Your task to perform on an android device: Open Reddit.com Image 0: 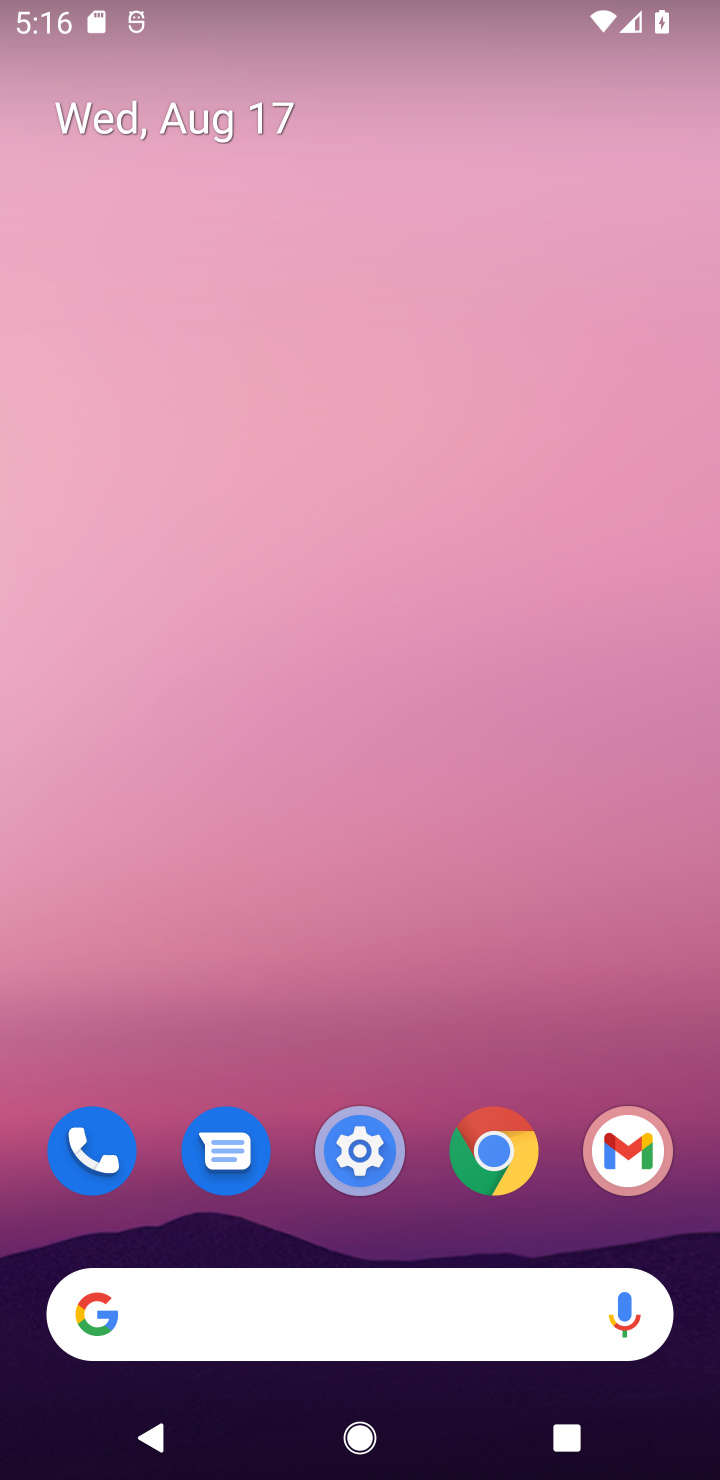
Step 0: click (499, 1154)
Your task to perform on an android device: Open Reddit.com Image 1: 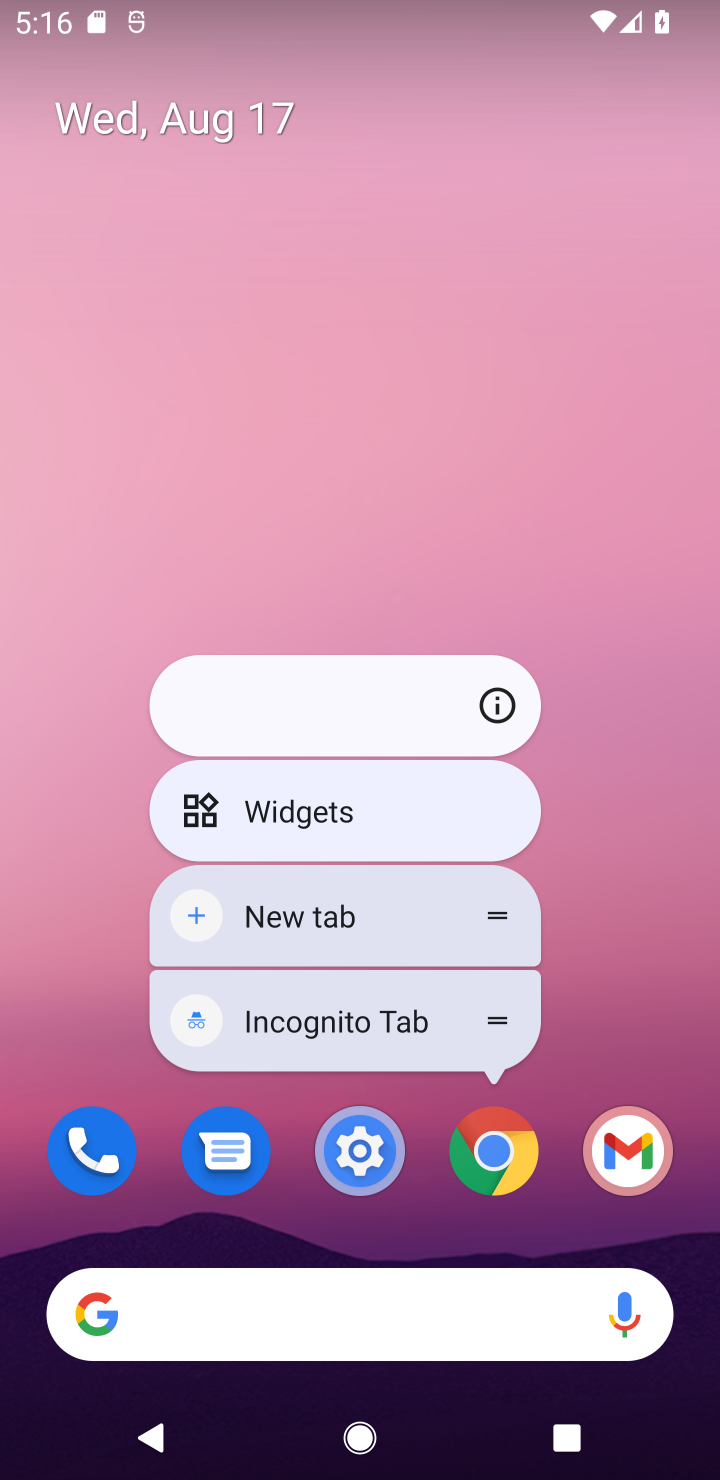
Step 1: click (498, 1153)
Your task to perform on an android device: Open Reddit.com Image 2: 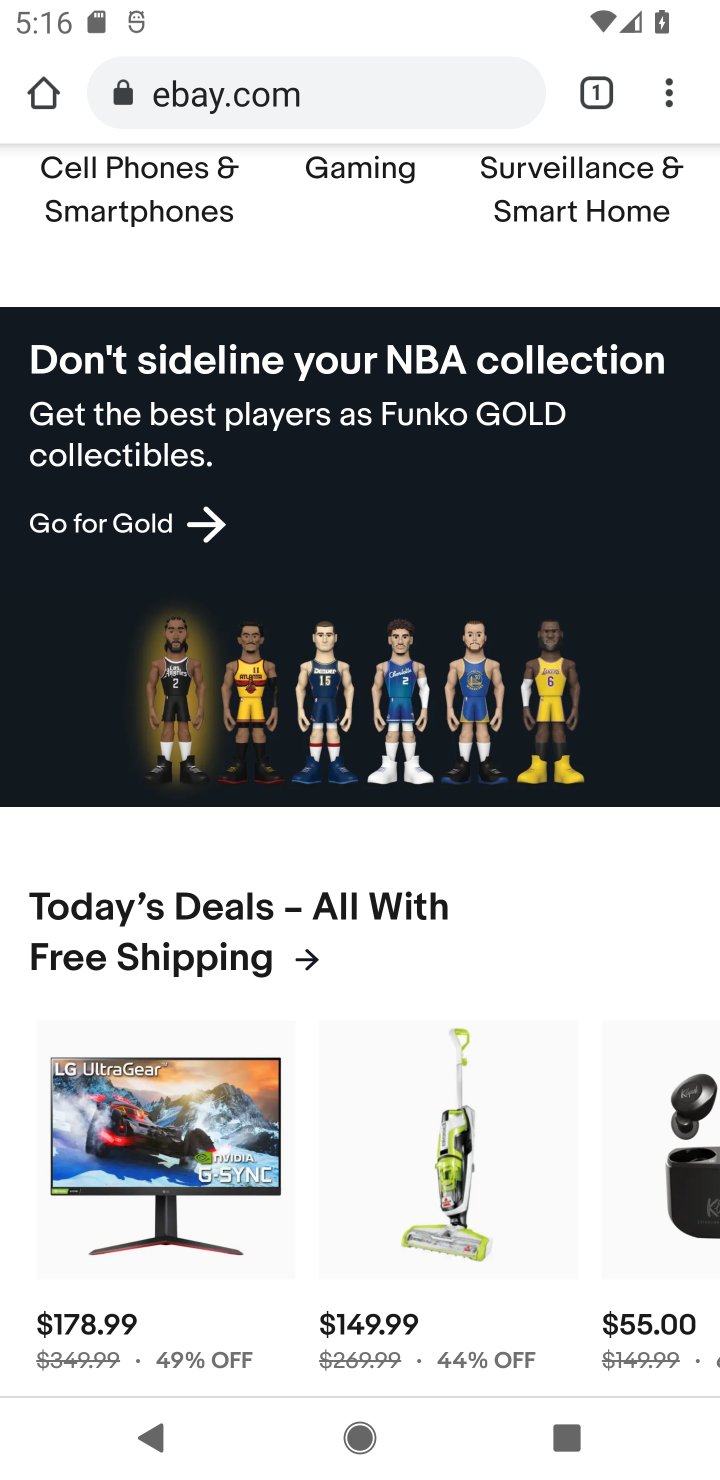
Step 2: click (410, 82)
Your task to perform on an android device: Open Reddit.com Image 3: 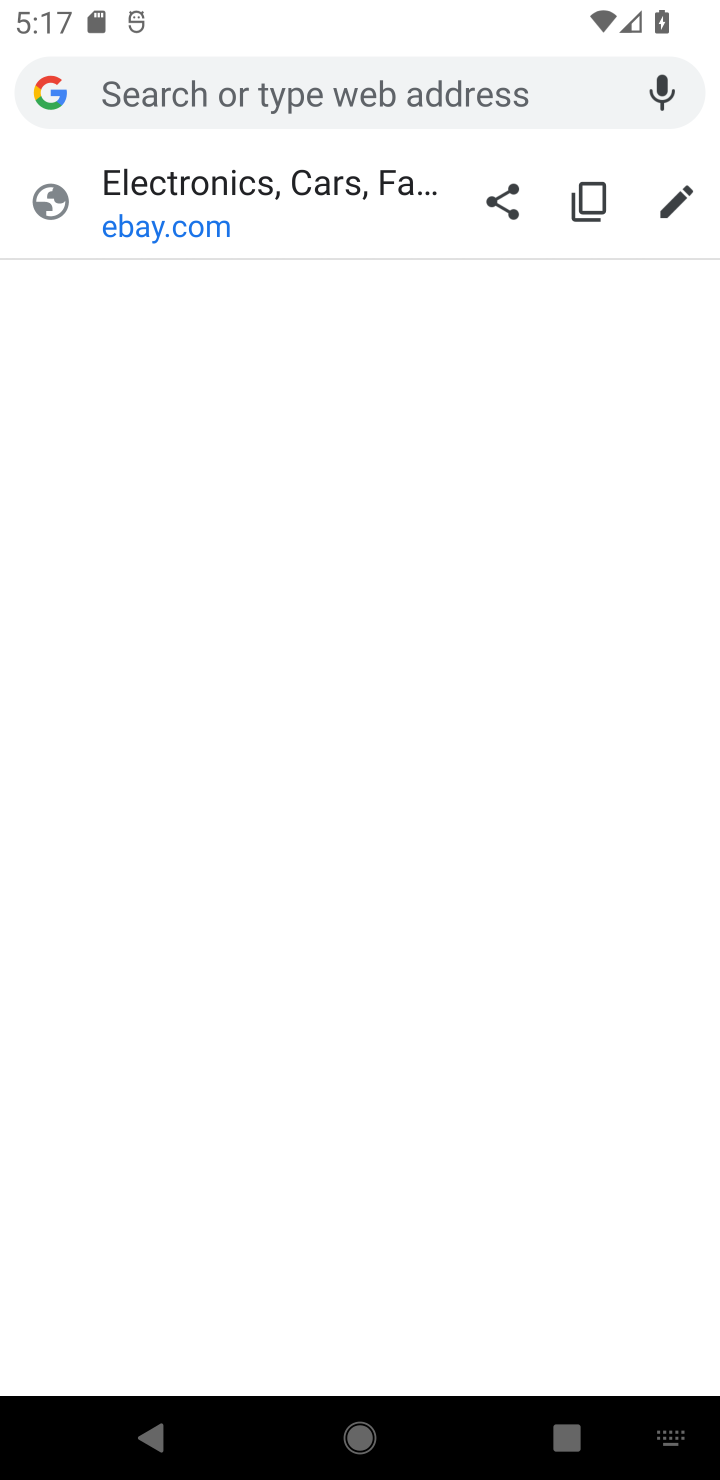
Step 3: type "reddit.com"
Your task to perform on an android device: Open Reddit.com Image 4: 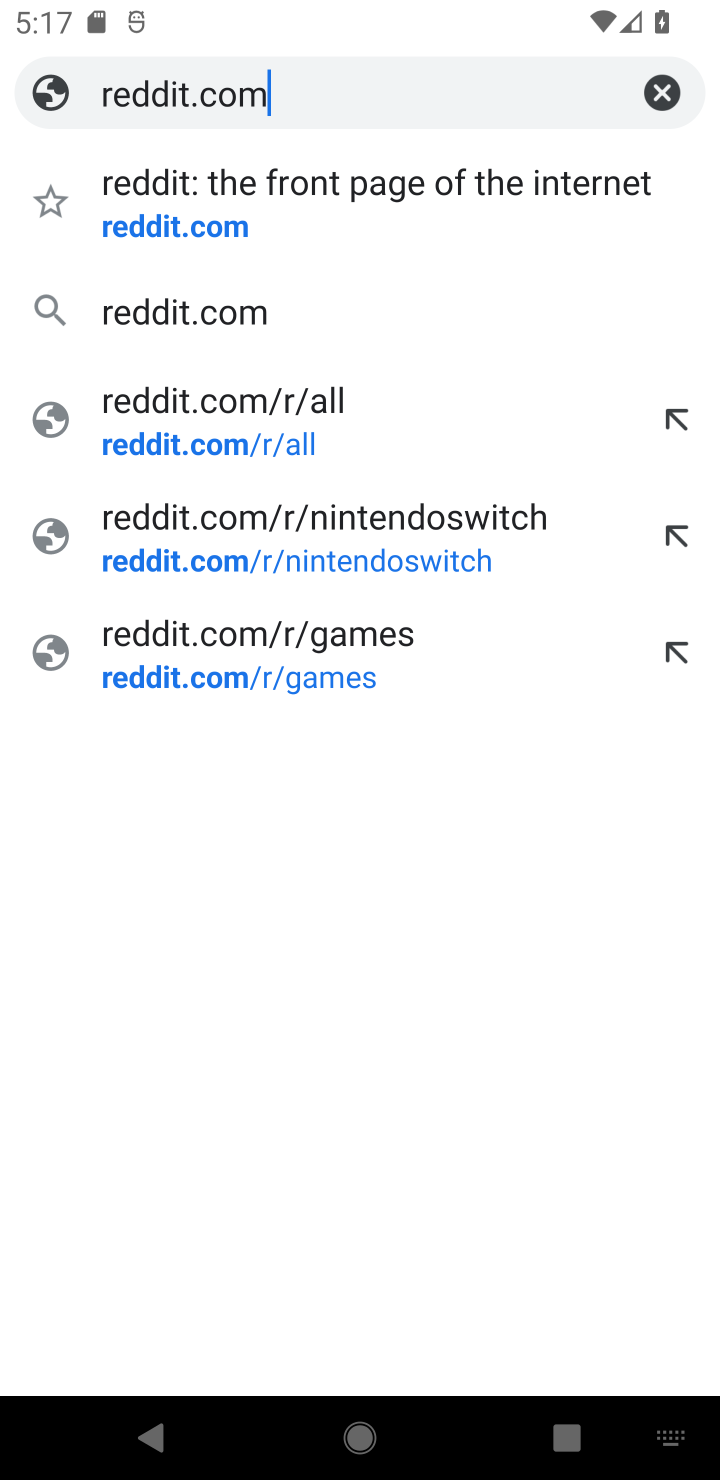
Step 4: click (199, 186)
Your task to perform on an android device: Open Reddit.com Image 5: 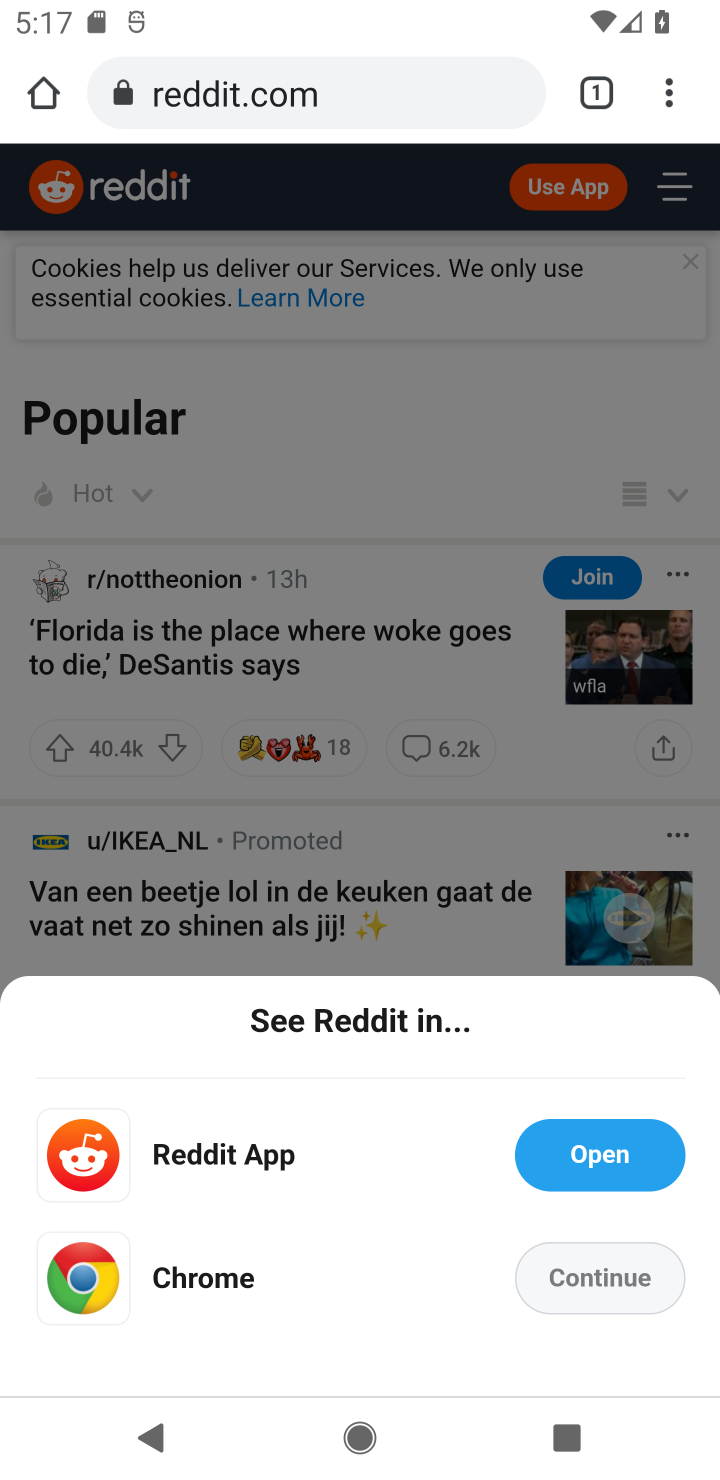
Step 5: task complete